Your task to perform on an android device: set the stopwatch Image 0: 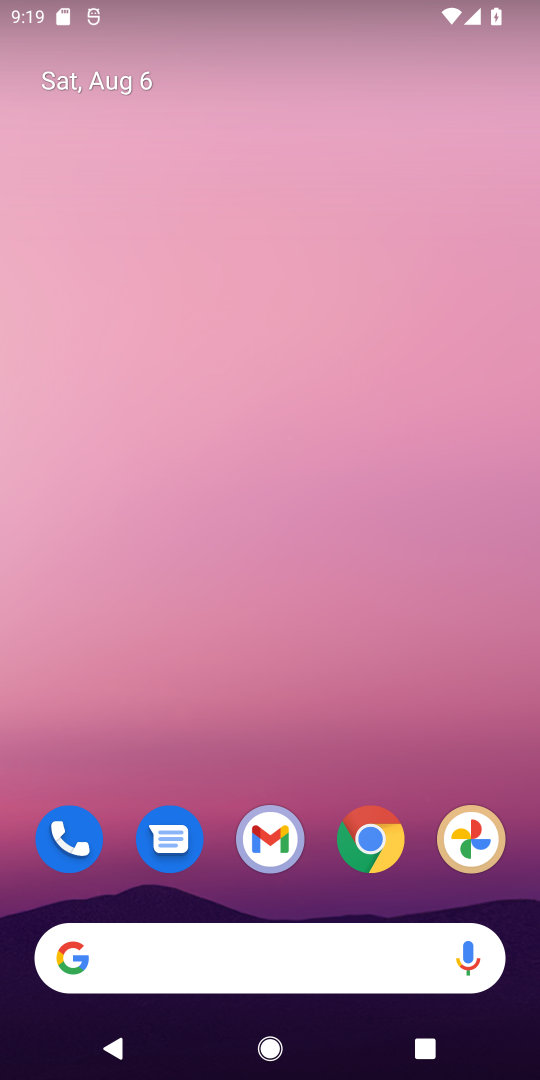
Step 0: drag from (313, 866) to (330, 110)
Your task to perform on an android device: set the stopwatch Image 1: 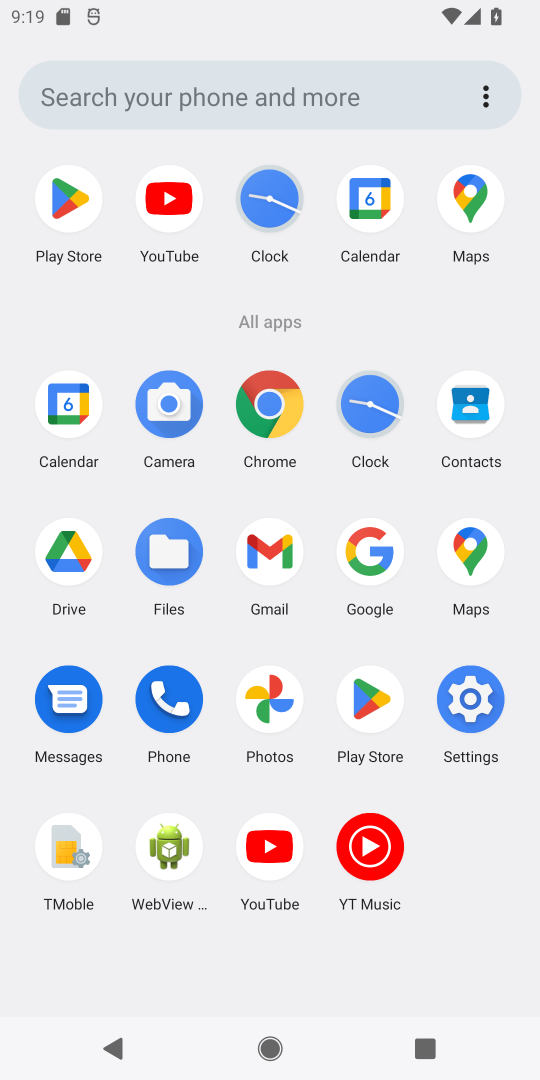
Step 1: click (358, 398)
Your task to perform on an android device: set the stopwatch Image 2: 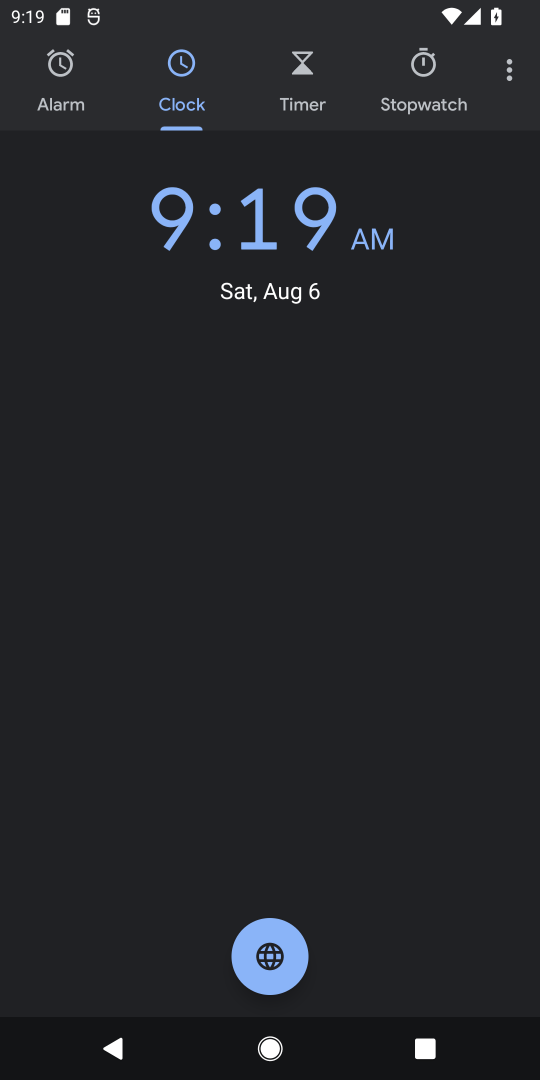
Step 2: click (410, 60)
Your task to perform on an android device: set the stopwatch Image 3: 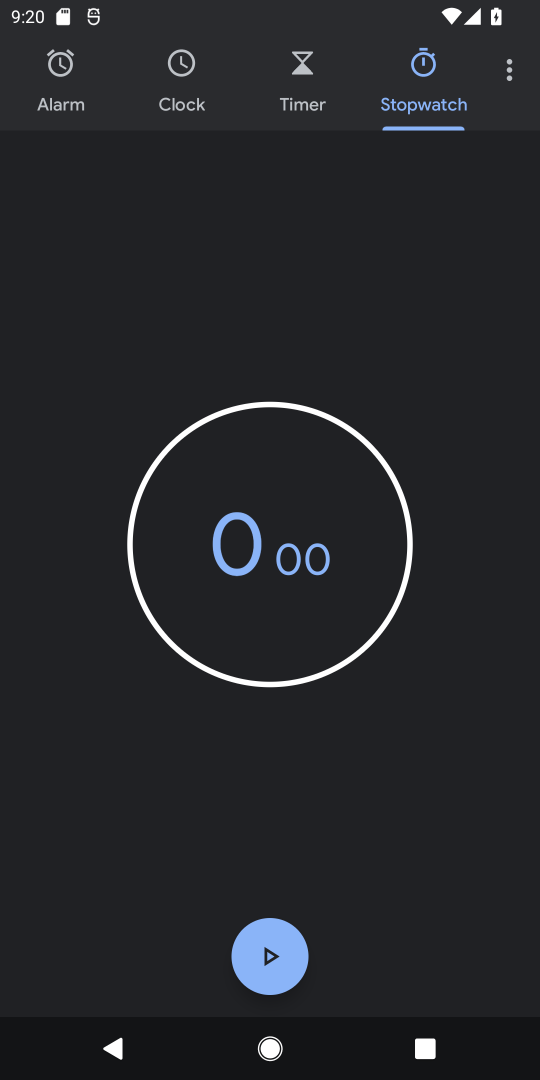
Step 3: click (266, 949)
Your task to perform on an android device: set the stopwatch Image 4: 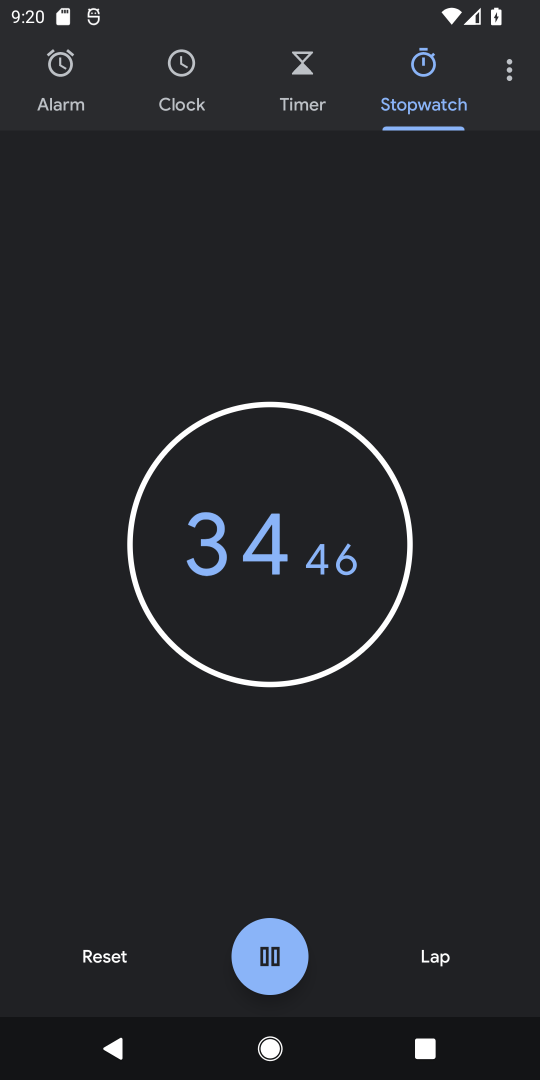
Step 4: task complete